Your task to perform on an android device: see sites visited before in the chrome app Image 0: 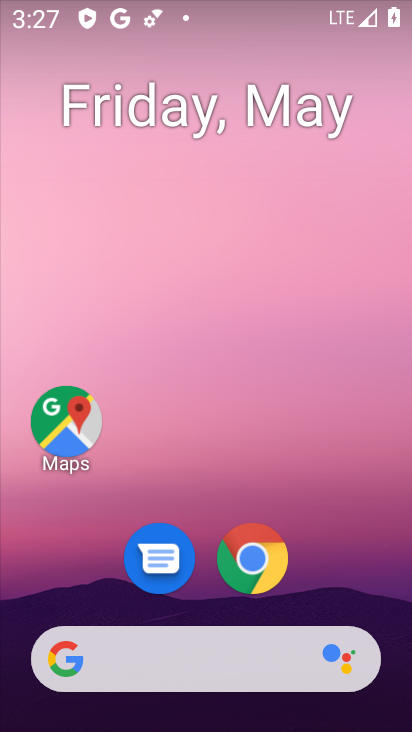
Step 0: press home button
Your task to perform on an android device: see sites visited before in the chrome app Image 1: 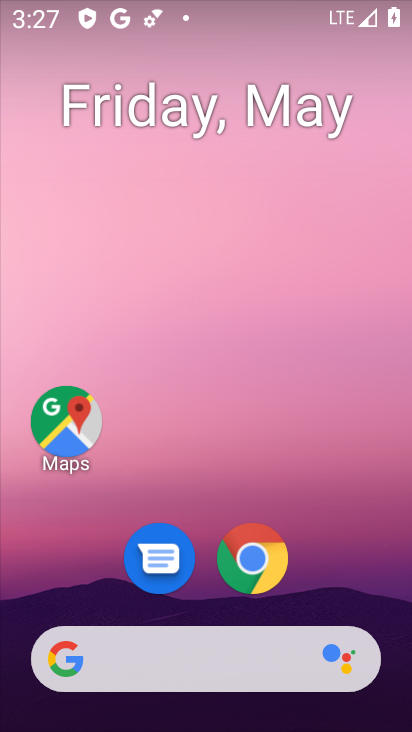
Step 1: click (269, 561)
Your task to perform on an android device: see sites visited before in the chrome app Image 2: 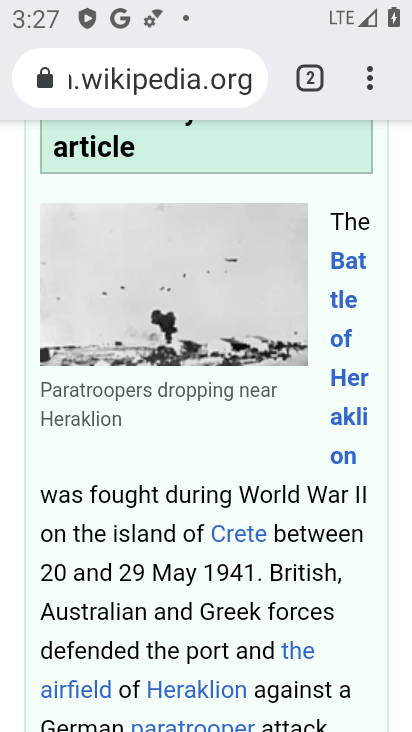
Step 2: task complete